Your task to perform on an android device: change the clock display to show seconds Image 0: 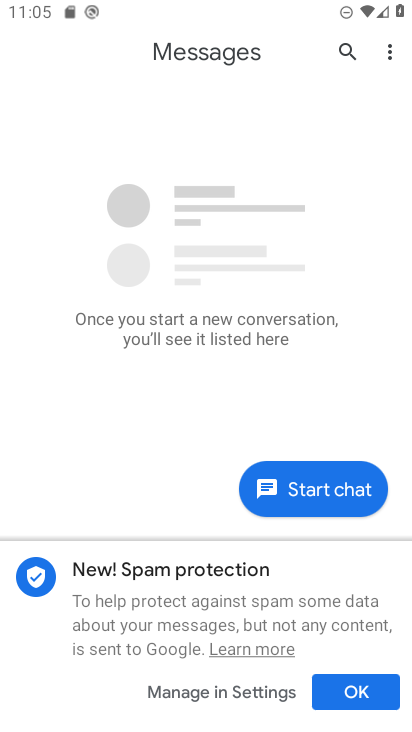
Step 0: press home button
Your task to perform on an android device: change the clock display to show seconds Image 1: 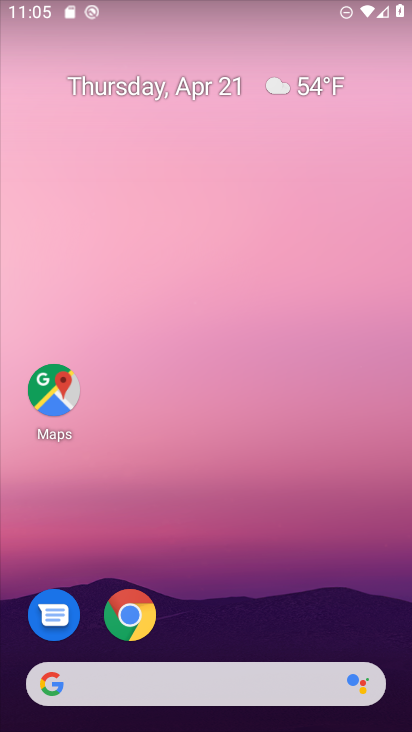
Step 1: drag from (253, 537) to (303, 129)
Your task to perform on an android device: change the clock display to show seconds Image 2: 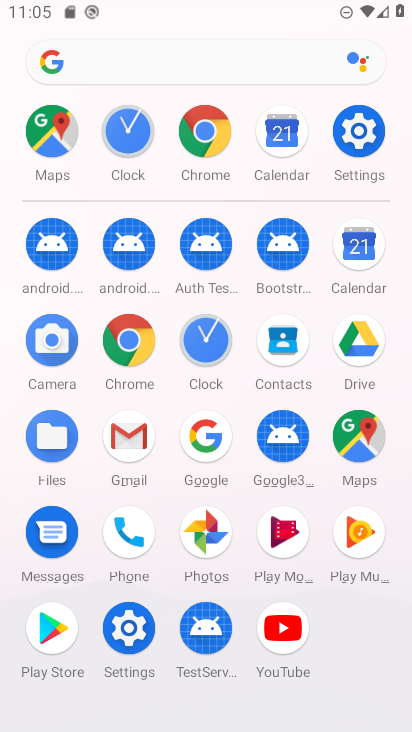
Step 2: click (201, 340)
Your task to perform on an android device: change the clock display to show seconds Image 3: 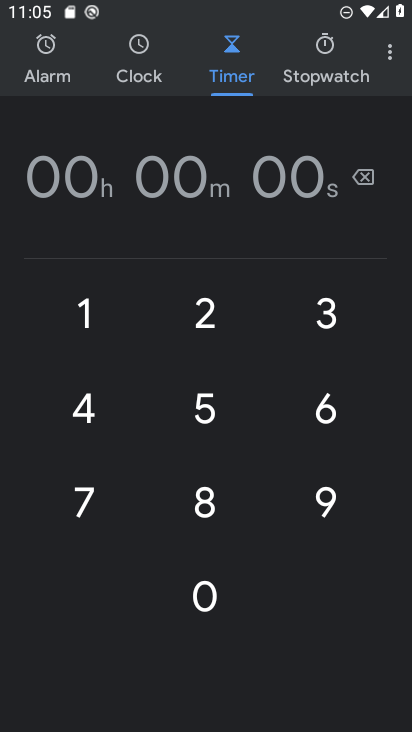
Step 3: click (382, 62)
Your task to perform on an android device: change the clock display to show seconds Image 4: 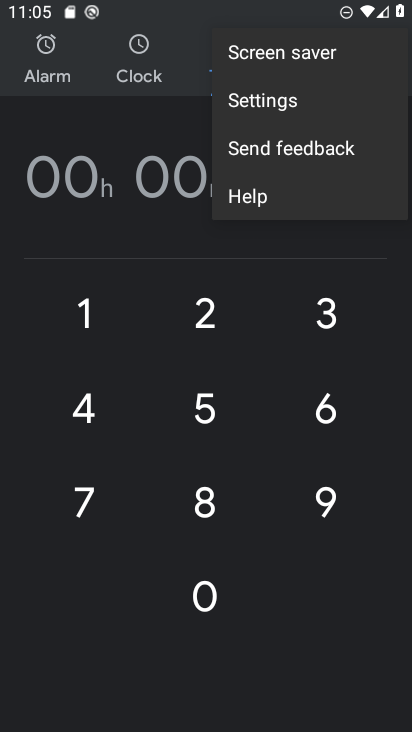
Step 4: click (354, 98)
Your task to perform on an android device: change the clock display to show seconds Image 5: 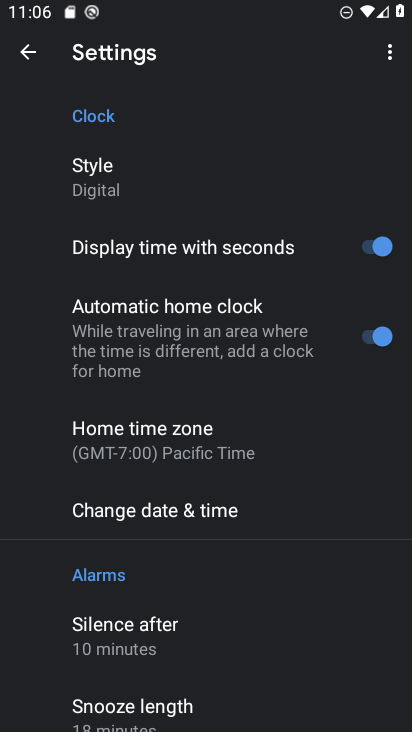
Step 5: task complete